Your task to perform on an android device: Open internet settings Image 0: 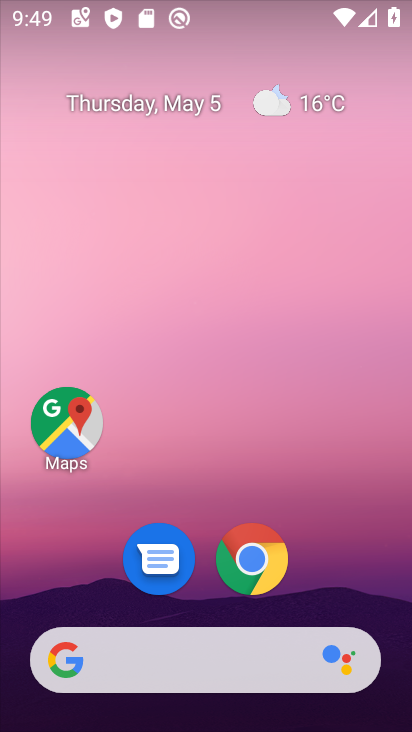
Step 0: drag from (205, 613) to (220, 83)
Your task to perform on an android device: Open internet settings Image 1: 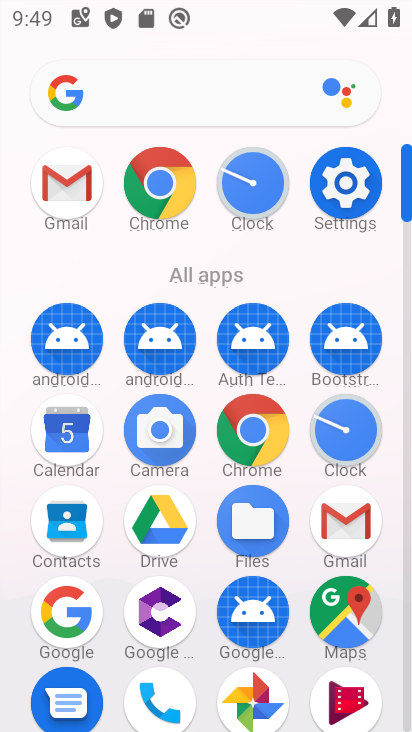
Step 1: click (337, 197)
Your task to perform on an android device: Open internet settings Image 2: 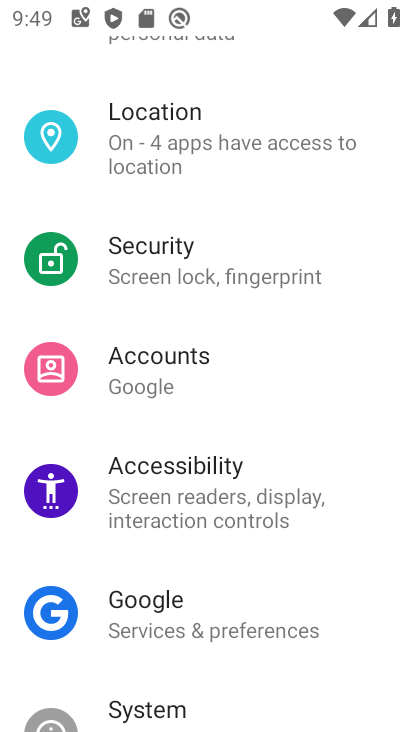
Step 2: drag from (298, 223) to (317, 604)
Your task to perform on an android device: Open internet settings Image 3: 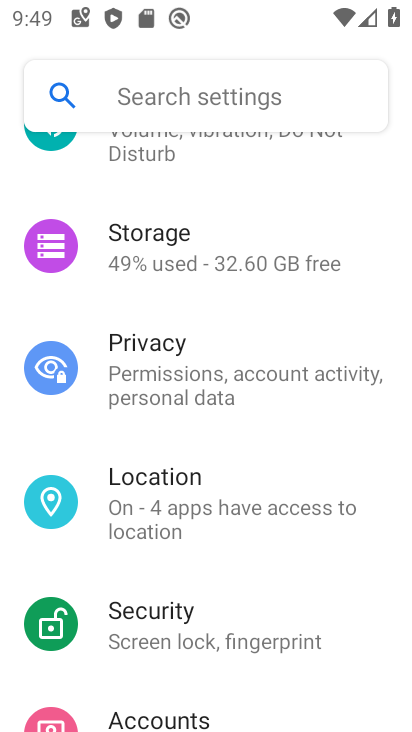
Step 3: drag from (276, 310) to (306, 679)
Your task to perform on an android device: Open internet settings Image 4: 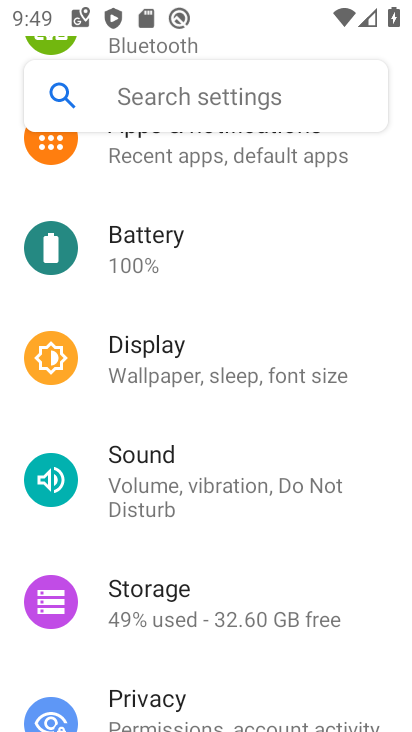
Step 4: drag from (269, 269) to (269, 676)
Your task to perform on an android device: Open internet settings Image 5: 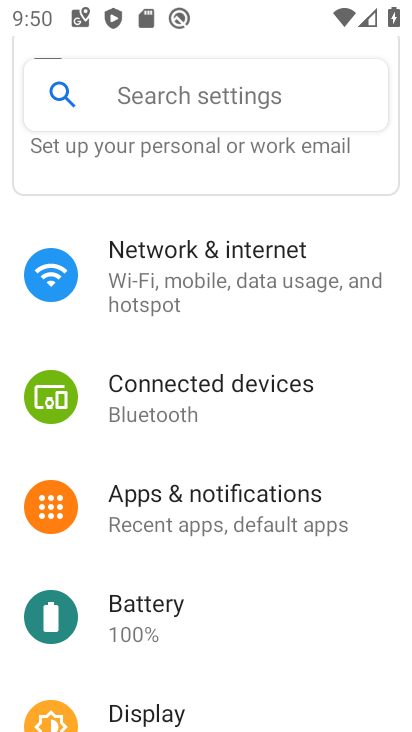
Step 5: click (219, 268)
Your task to perform on an android device: Open internet settings Image 6: 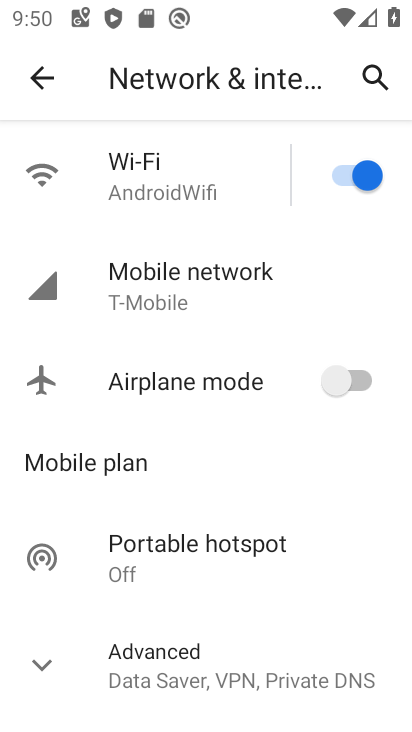
Step 6: task complete